Your task to perform on an android device: set an alarm Image 0: 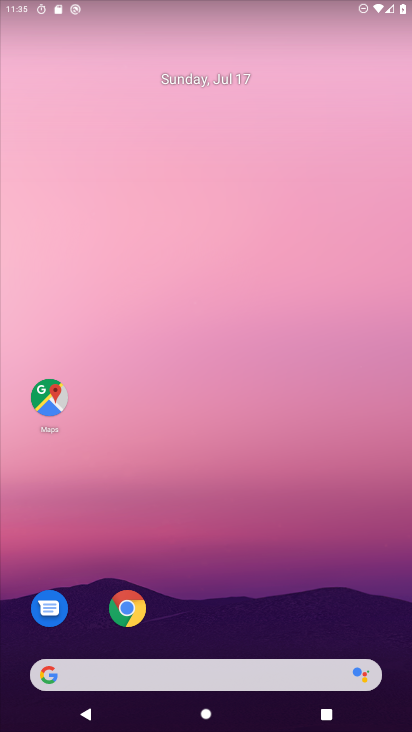
Step 0: click (240, 166)
Your task to perform on an android device: set an alarm Image 1: 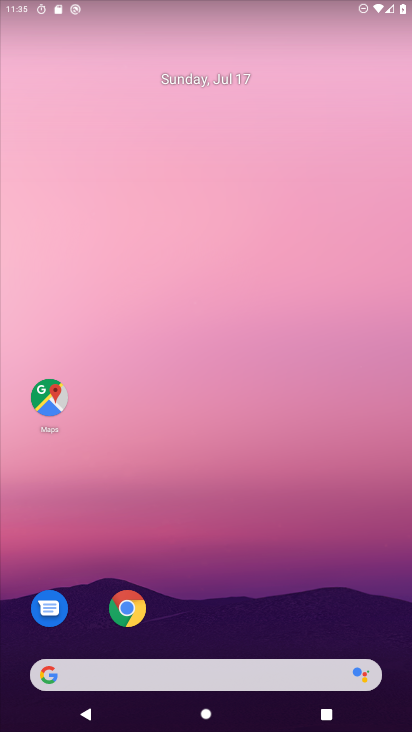
Step 1: drag from (275, 568) to (223, 270)
Your task to perform on an android device: set an alarm Image 2: 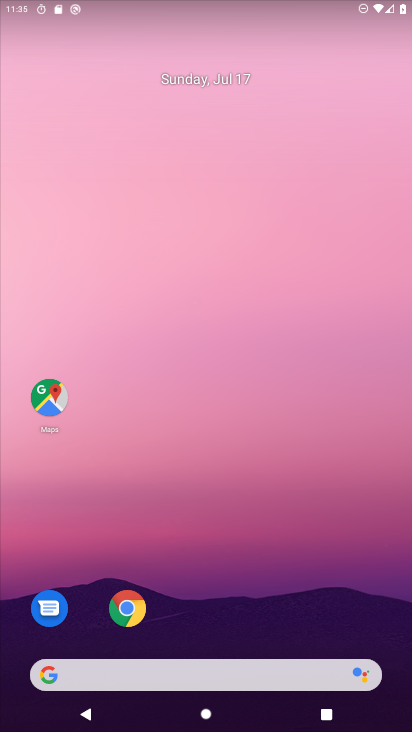
Step 2: drag from (290, 608) to (227, 9)
Your task to perform on an android device: set an alarm Image 3: 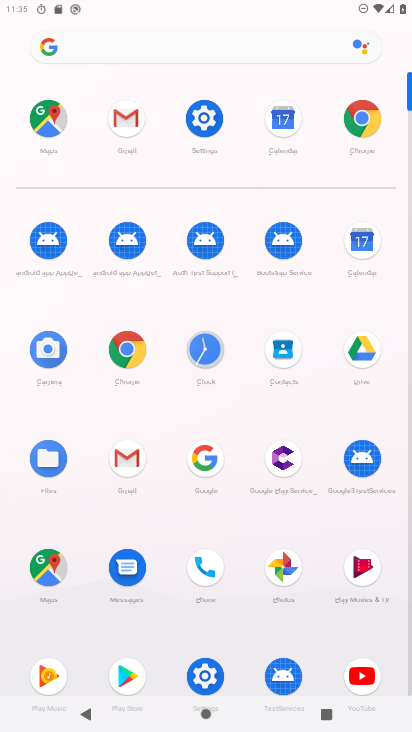
Step 3: click (194, 350)
Your task to perform on an android device: set an alarm Image 4: 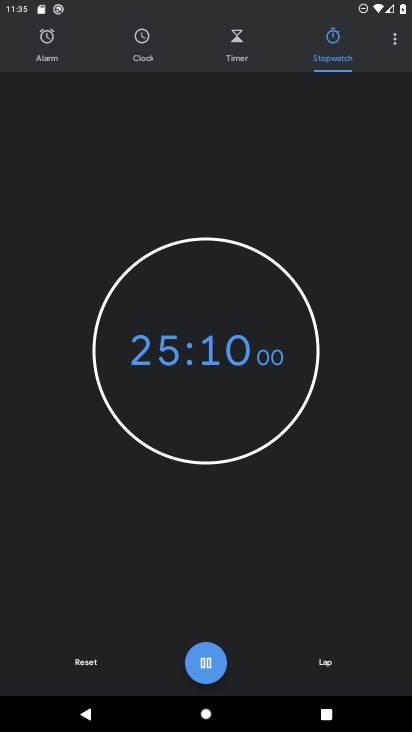
Step 4: click (37, 51)
Your task to perform on an android device: set an alarm Image 5: 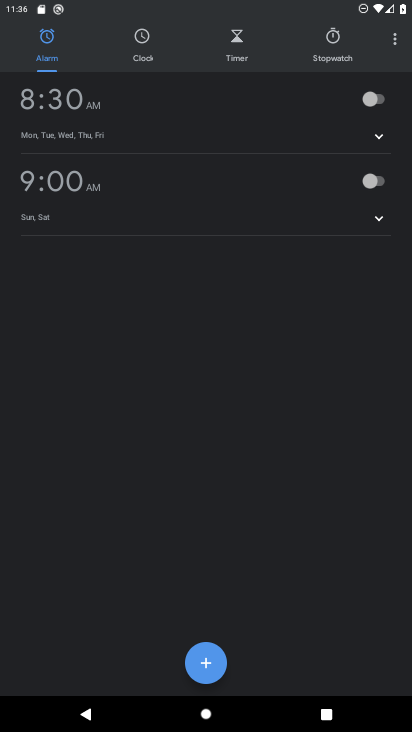
Step 5: click (202, 660)
Your task to perform on an android device: set an alarm Image 6: 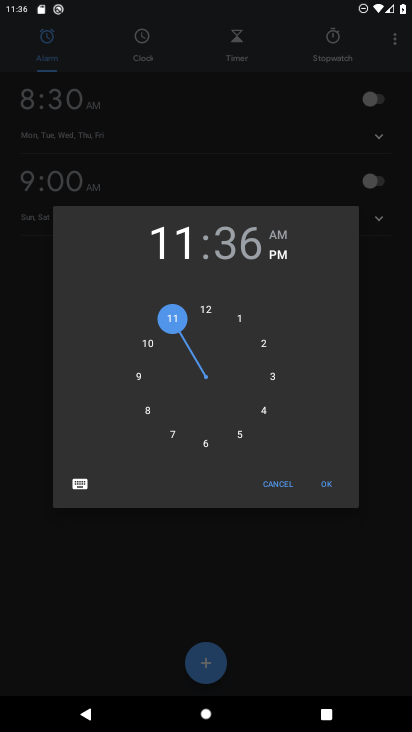
Step 6: click (321, 482)
Your task to perform on an android device: set an alarm Image 7: 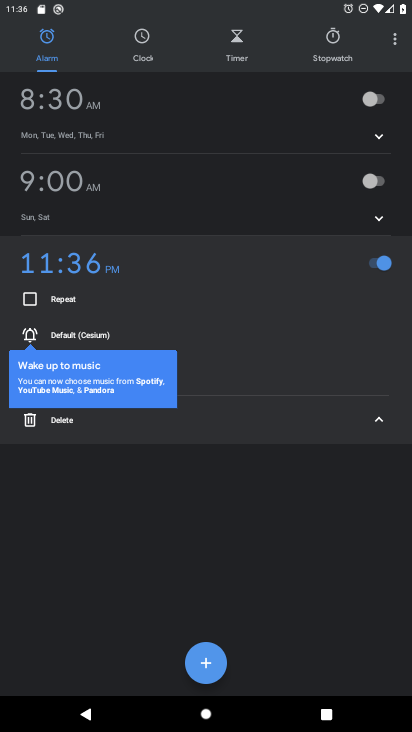
Step 7: click (385, 420)
Your task to perform on an android device: set an alarm Image 8: 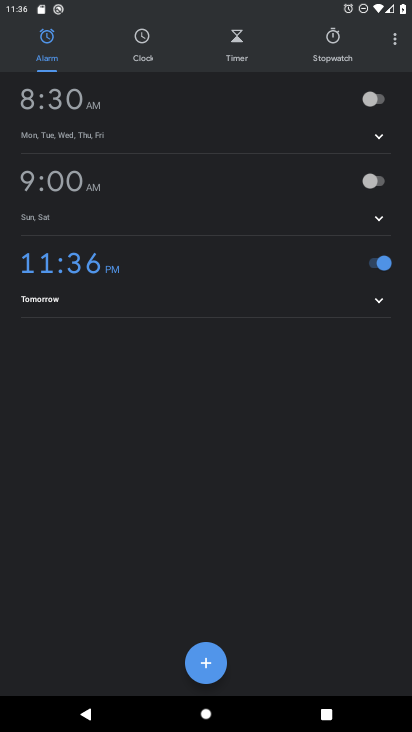
Step 8: task complete